Your task to perform on an android device: Add "logitech g pro" to the cart on costco.com, then select checkout. Image 0: 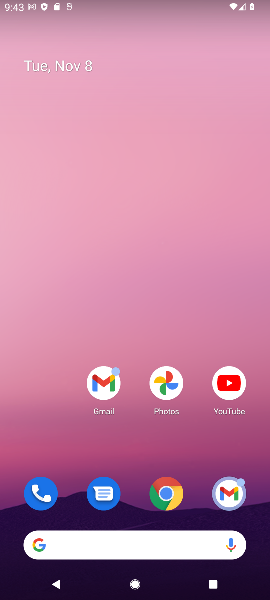
Step 0: click (167, 496)
Your task to perform on an android device: Add "logitech g pro" to the cart on costco.com, then select checkout. Image 1: 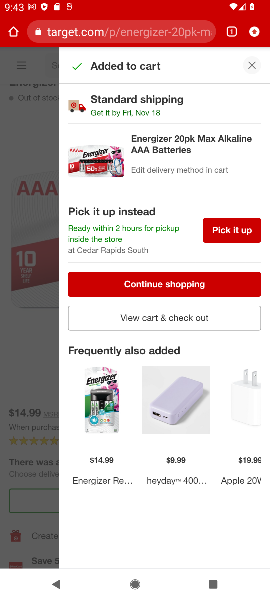
Step 1: click (99, 27)
Your task to perform on an android device: Add "logitech g pro" to the cart on costco.com, then select checkout. Image 2: 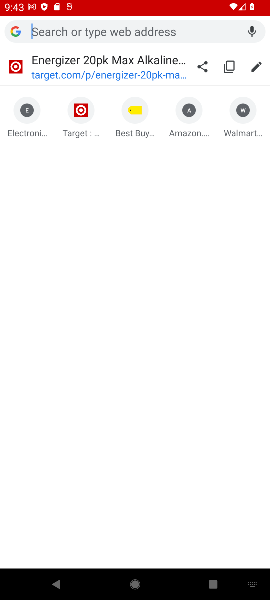
Step 2: type "costco.com"
Your task to perform on an android device: Add "logitech g pro" to the cart on costco.com, then select checkout. Image 3: 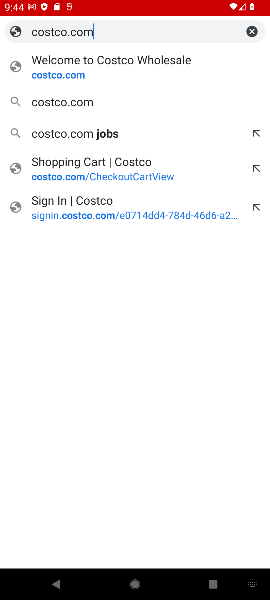
Step 3: click (57, 69)
Your task to perform on an android device: Add "logitech g pro" to the cart on costco.com, then select checkout. Image 4: 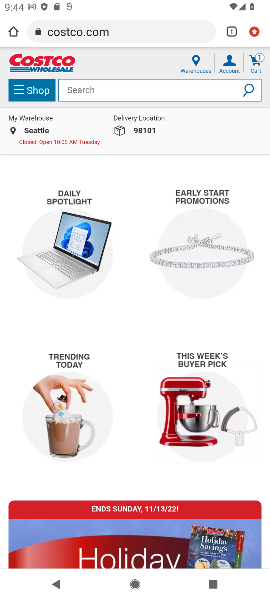
Step 4: click (128, 87)
Your task to perform on an android device: Add "logitech g pro" to the cart on costco.com, then select checkout. Image 5: 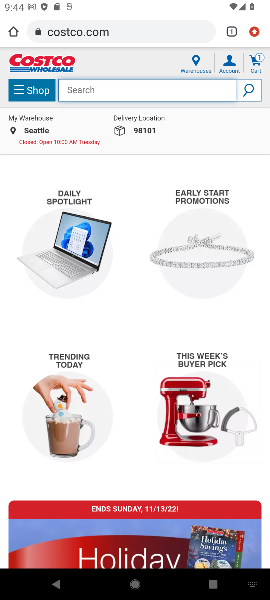
Step 5: type "logitech g pro"
Your task to perform on an android device: Add "logitech g pro" to the cart on costco.com, then select checkout. Image 6: 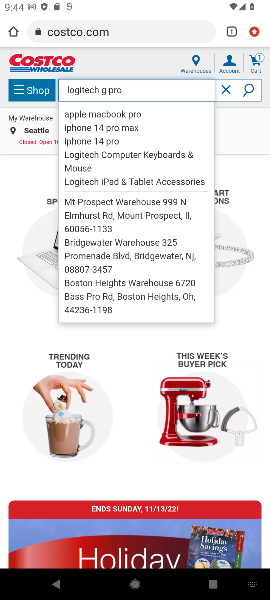
Step 6: click (245, 96)
Your task to perform on an android device: Add "logitech g pro" to the cart on costco.com, then select checkout. Image 7: 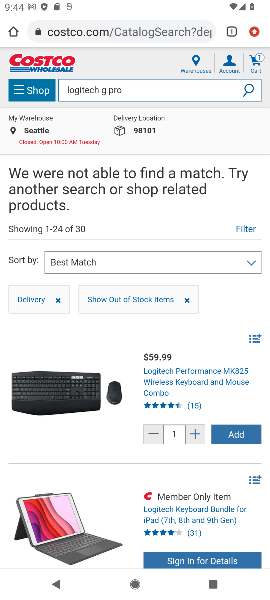
Step 7: task complete